Your task to perform on an android device: Play the last video I watched on Youtube Image 0: 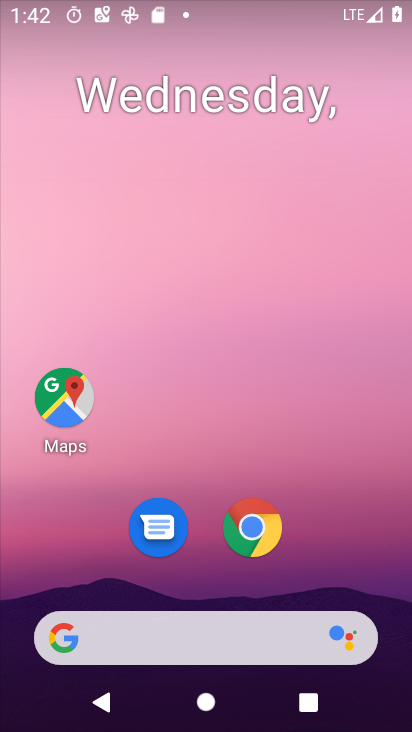
Step 0: drag from (292, 569) to (392, 1)
Your task to perform on an android device: Play the last video I watched on Youtube Image 1: 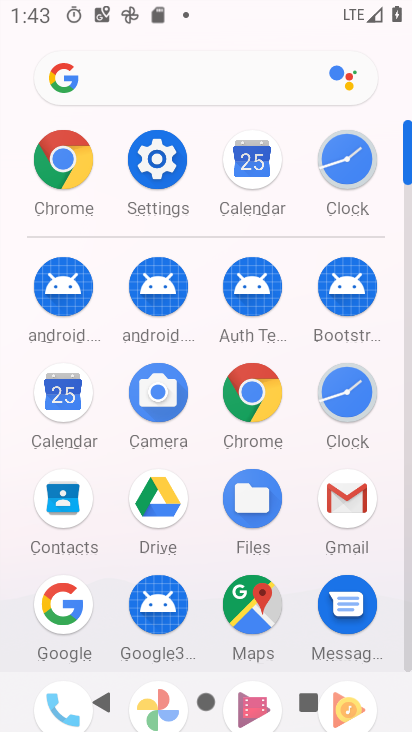
Step 1: drag from (304, 577) to (296, 52)
Your task to perform on an android device: Play the last video I watched on Youtube Image 2: 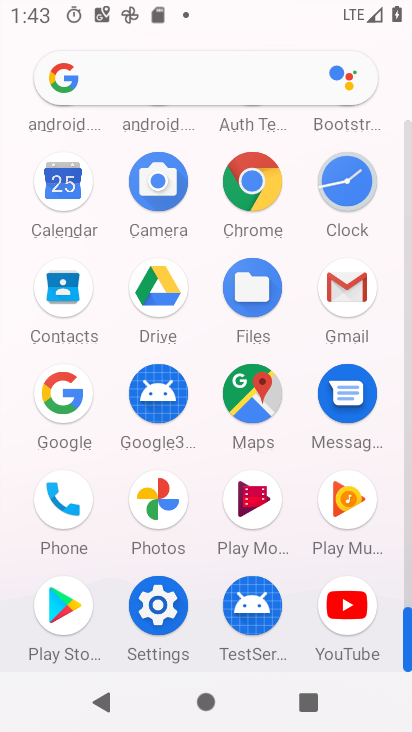
Step 2: click (356, 620)
Your task to perform on an android device: Play the last video I watched on Youtube Image 3: 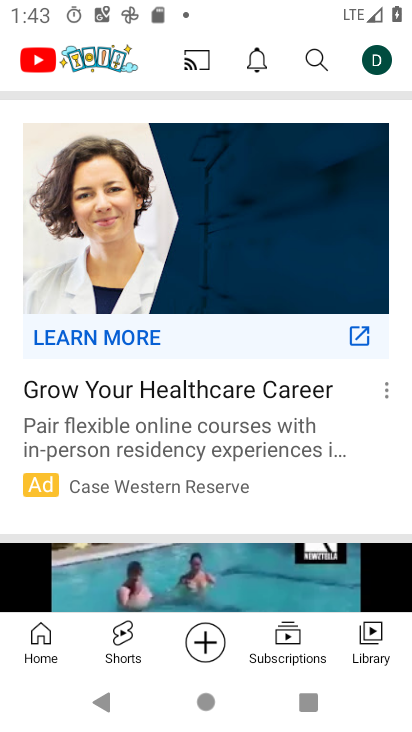
Step 3: click (376, 637)
Your task to perform on an android device: Play the last video I watched on Youtube Image 4: 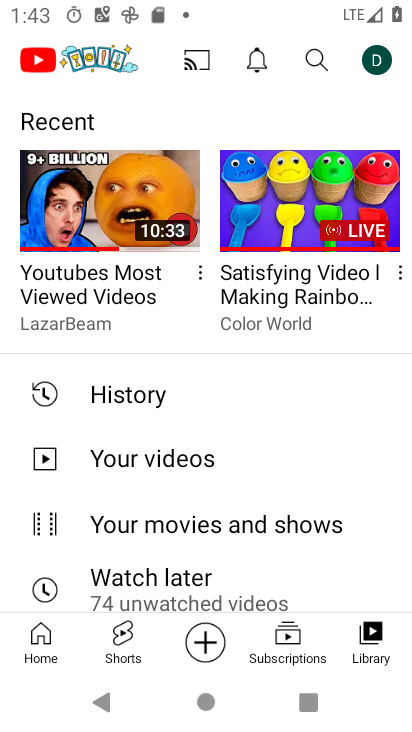
Step 4: drag from (282, 567) to (269, 203)
Your task to perform on an android device: Play the last video I watched on Youtube Image 5: 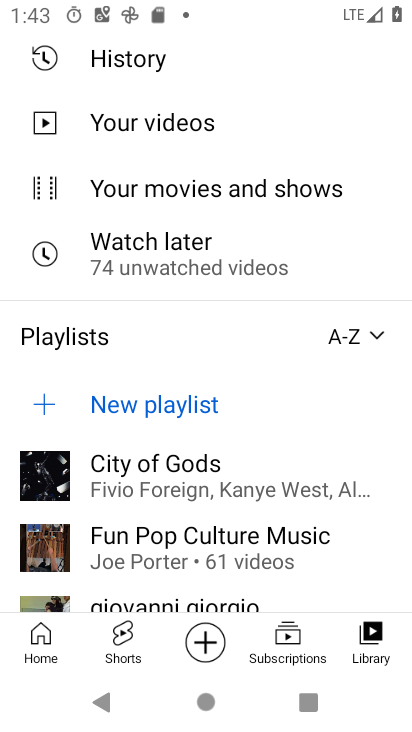
Step 5: drag from (280, 268) to (244, 722)
Your task to perform on an android device: Play the last video I watched on Youtube Image 6: 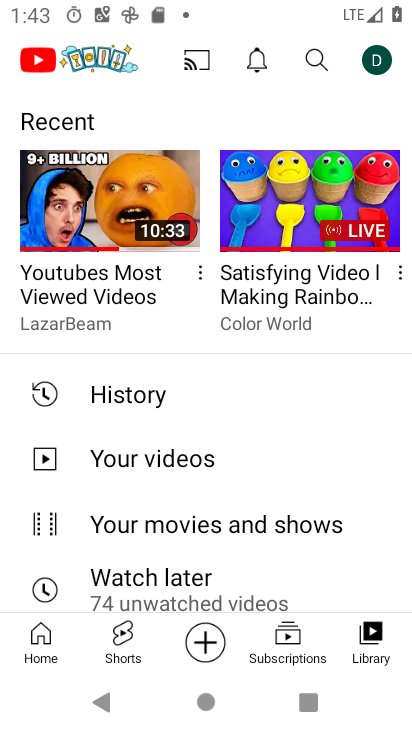
Step 6: click (78, 182)
Your task to perform on an android device: Play the last video I watched on Youtube Image 7: 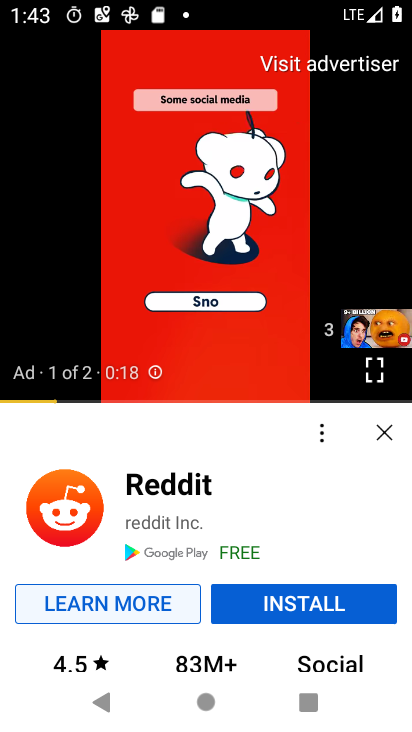
Step 7: task complete